Your task to perform on an android device: turn off notifications settings in the gmail app Image 0: 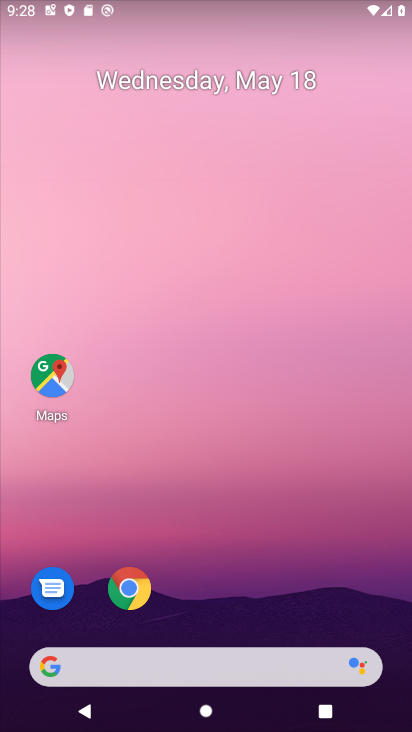
Step 0: drag from (299, 678) to (330, 101)
Your task to perform on an android device: turn off notifications settings in the gmail app Image 1: 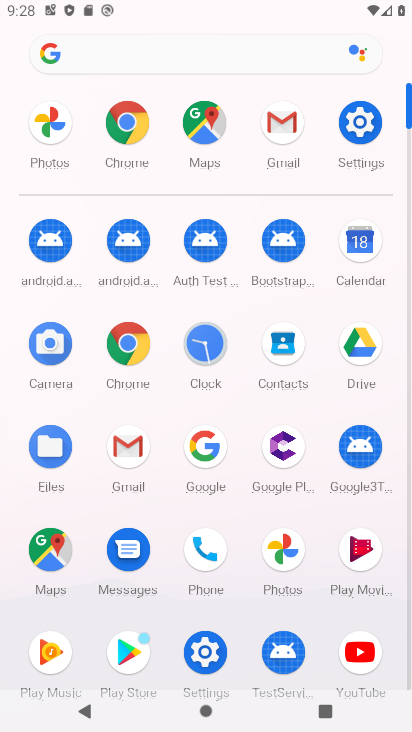
Step 1: click (134, 434)
Your task to perform on an android device: turn off notifications settings in the gmail app Image 2: 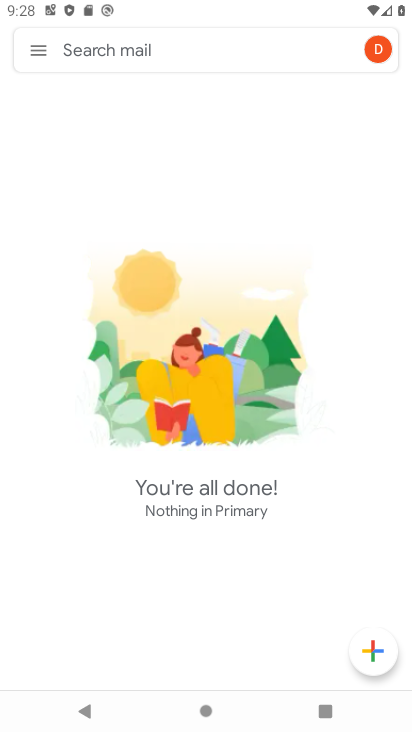
Step 2: click (52, 56)
Your task to perform on an android device: turn off notifications settings in the gmail app Image 3: 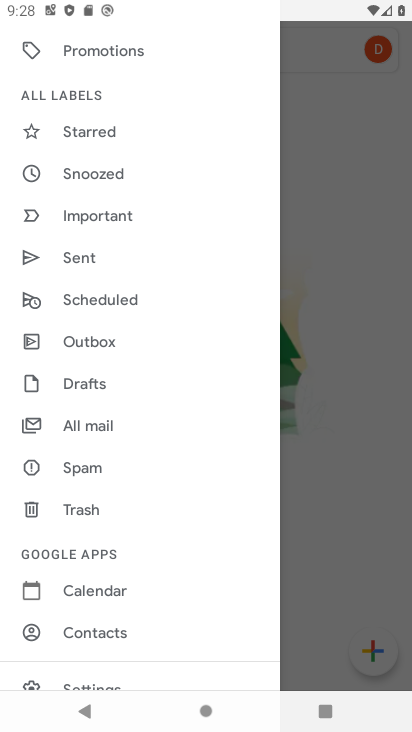
Step 3: drag from (148, 560) to (195, 354)
Your task to perform on an android device: turn off notifications settings in the gmail app Image 4: 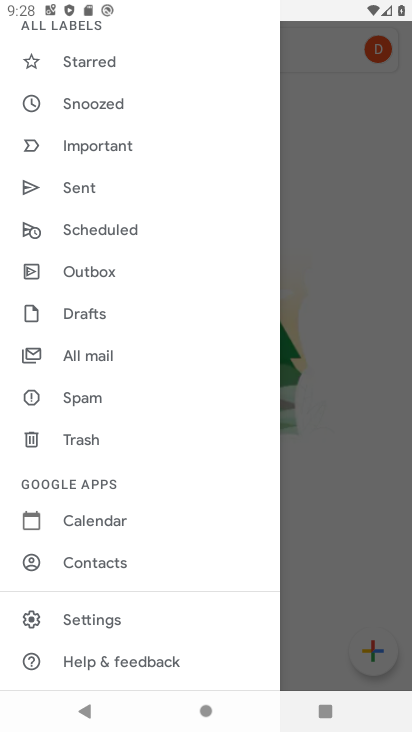
Step 4: click (105, 618)
Your task to perform on an android device: turn off notifications settings in the gmail app Image 5: 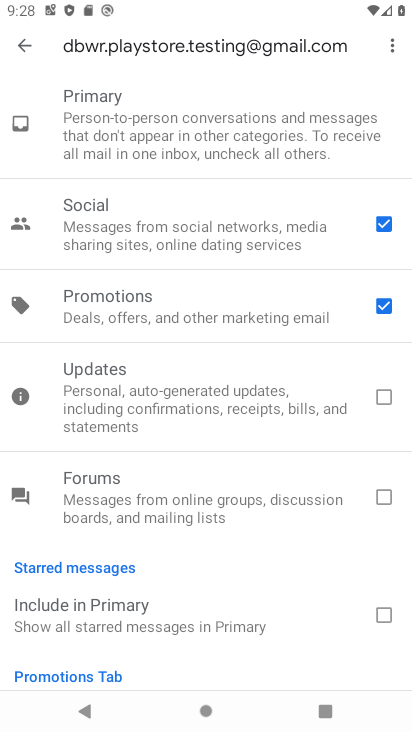
Step 5: drag from (109, 611) to (229, 356)
Your task to perform on an android device: turn off notifications settings in the gmail app Image 6: 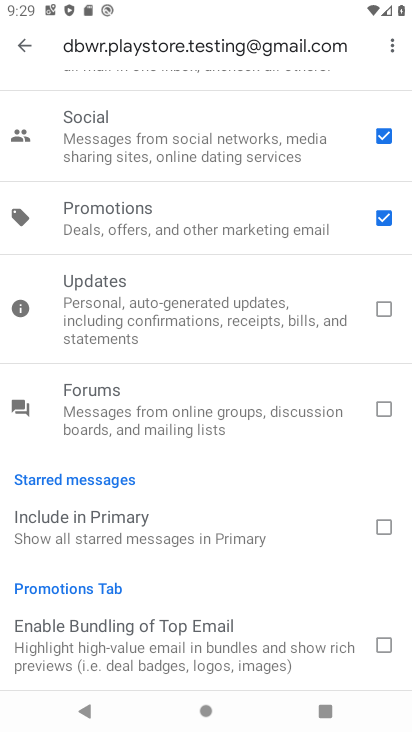
Step 6: click (32, 43)
Your task to perform on an android device: turn off notifications settings in the gmail app Image 7: 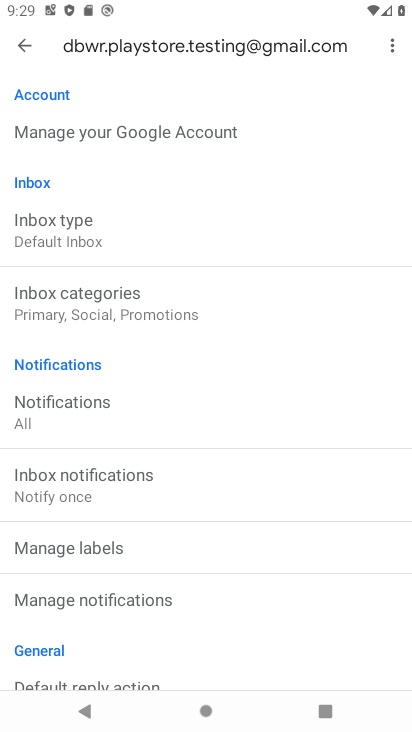
Step 7: click (106, 406)
Your task to perform on an android device: turn off notifications settings in the gmail app Image 8: 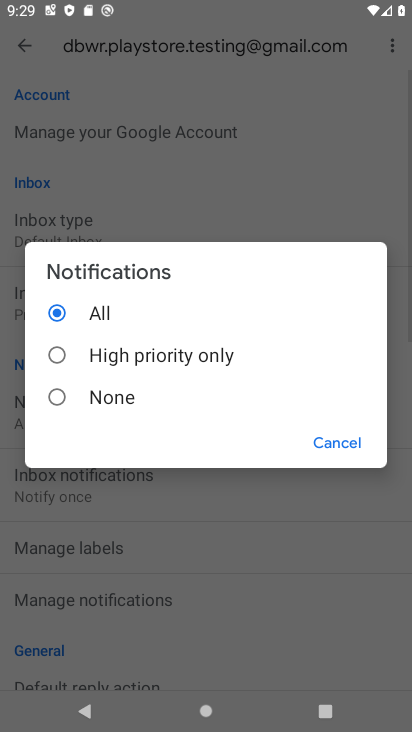
Step 8: click (101, 398)
Your task to perform on an android device: turn off notifications settings in the gmail app Image 9: 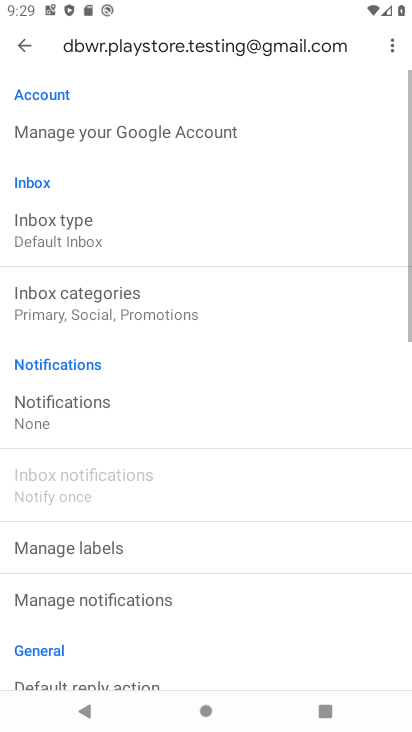
Step 9: task complete